Your task to perform on an android device: turn on sleep mode Image 0: 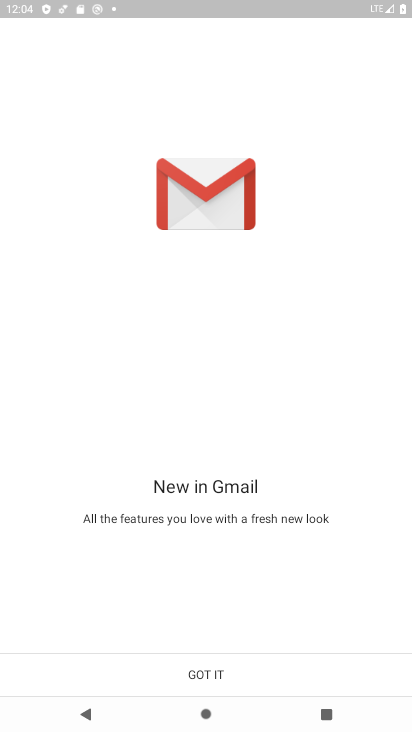
Step 0: press home button
Your task to perform on an android device: turn on sleep mode Image 1: 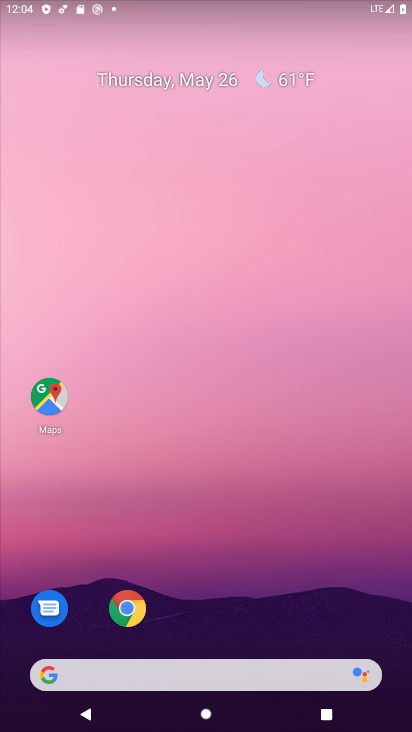
Step 1: drag from (392, 600) to (326, 153)
Your task to perform on an android device: turn on sleep mode Image 2: 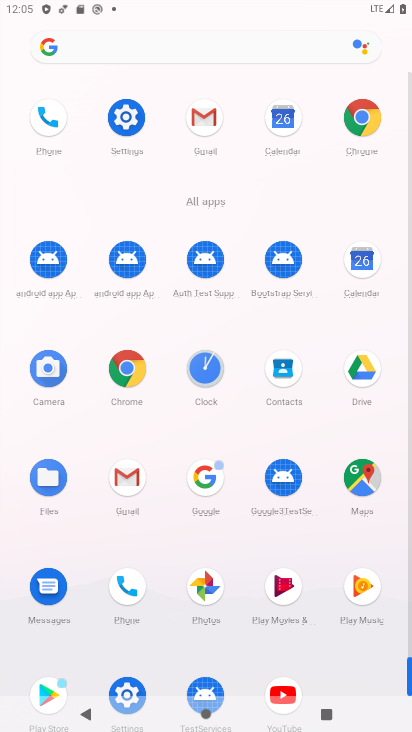
Step 2: click (124, 685)
Your task to perform on an android device: turn on sleep mode Image 3: 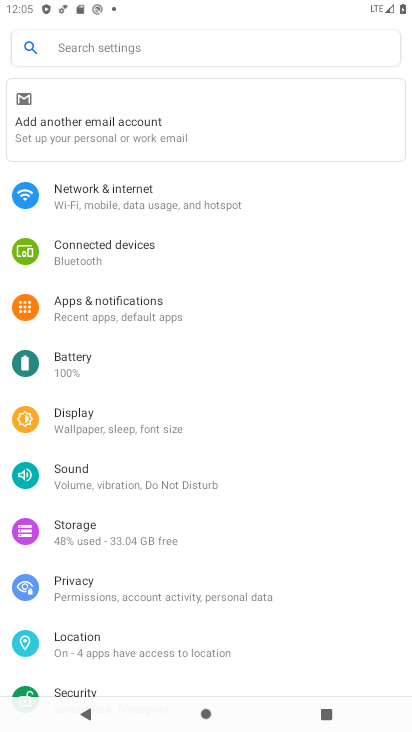
Step 3: click (91, 416)
Your task to perform on an android device: turn on sleep mode Image 4: 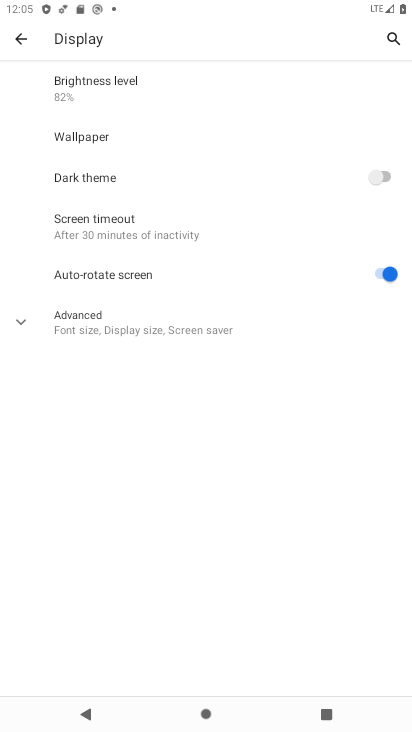
Step 4: click (14, 319)
Your task to perform on an android device: turn on sleep mode Image 5: 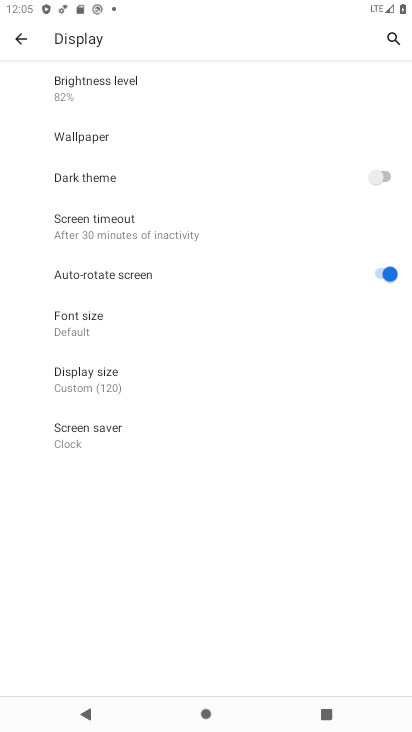
Step 5: task complete